Your task to perform on an android device: Open calendar and show me the third week of next month Image 0: 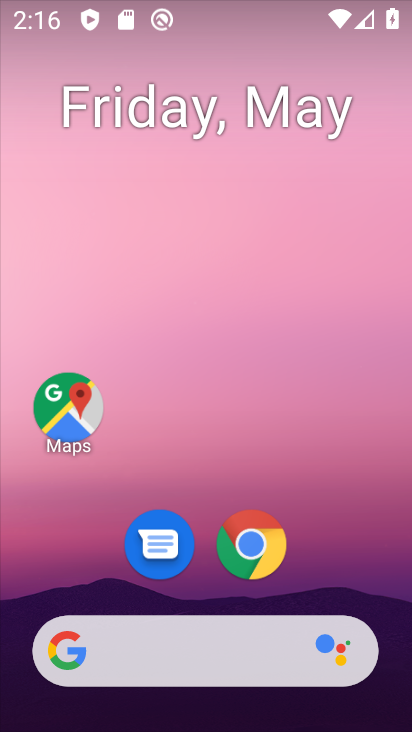
Step 0: drag from (184, 563) to (280, 0)
Your task to perform on an android device: Open calendar and show me the third week of next month Image 1: 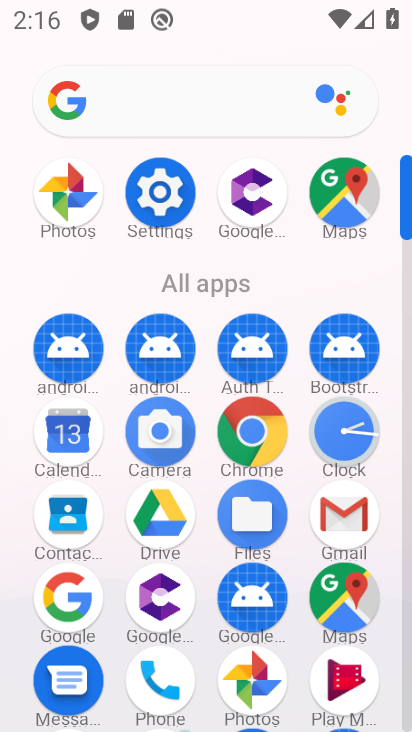
Step 1: click (75, 454)
Your task to perform on an android device: Open calendar and show me the third week of next month Image 2: 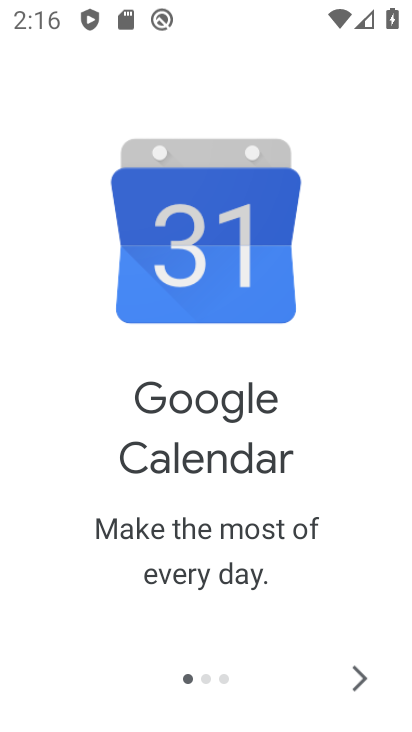
Step 2: click (377, 660)
Your task to perform on an android device: Open calendar and show me the third week of next month Image 3: 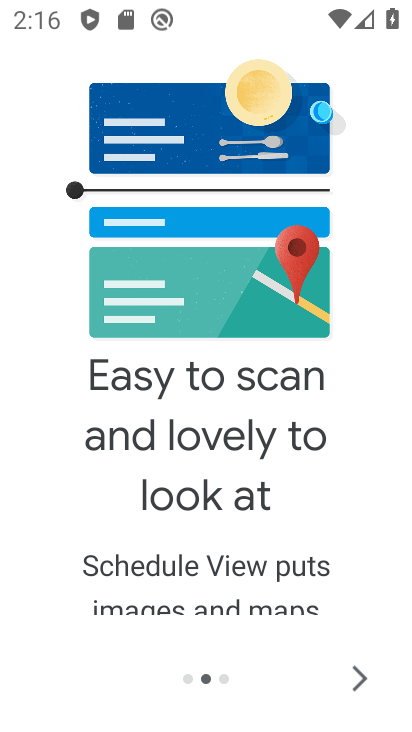
Step 3: click (365, 665)
Your task to perform on an android device: Open calendar and show me the third week of next month Image 4: 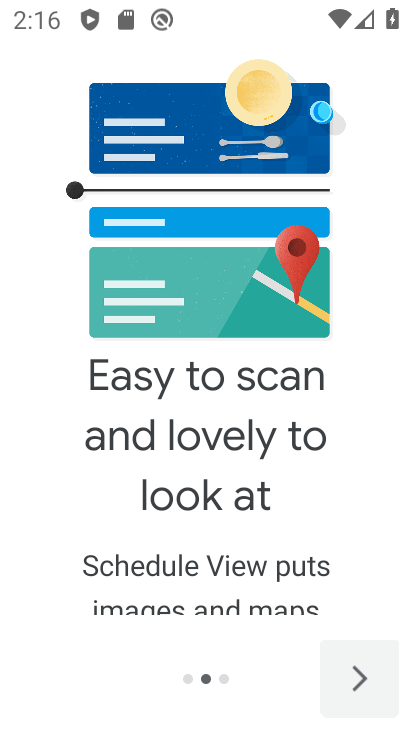
Step 4: click (365, 665)
Your task to perform on an android device: Open calendar and show me the third week of next month Image 5: 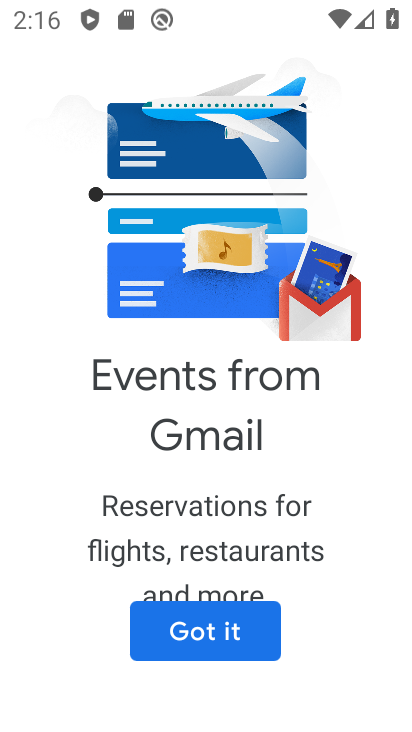
Step 5: click (211, 636)
Your task to perform on an android device: Open calendar and show me the third week of next month Image 6: 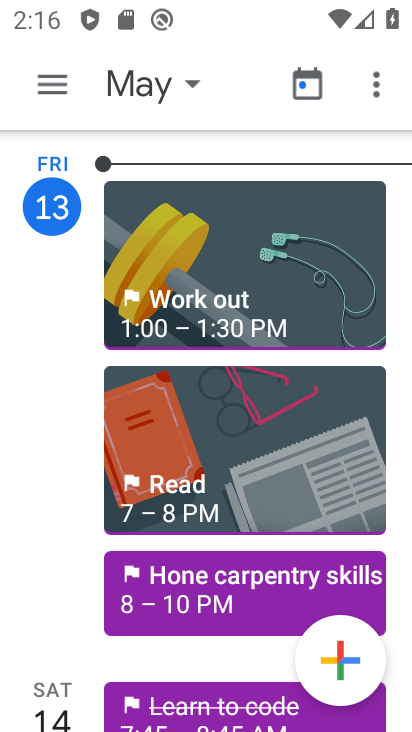
Step 6: click (165, 80)
Your task to perform on an android device: Open calendar and show me the third week of next month Image 7: 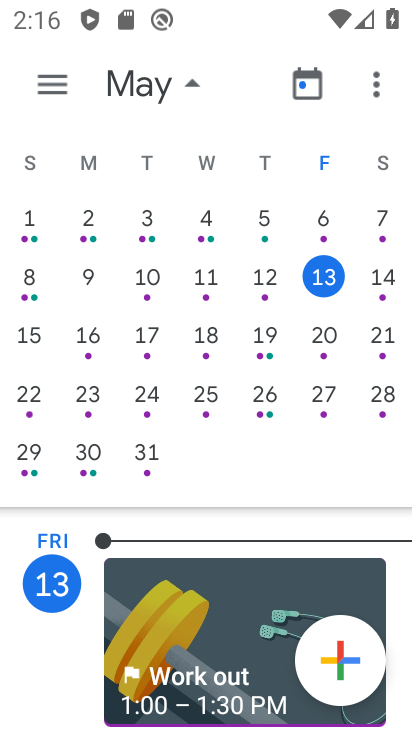
Step 7: drag from (361, 338) to (3, 289)
Your task to perform on an android device: Open calendar and show me the third week of next month Image 8: 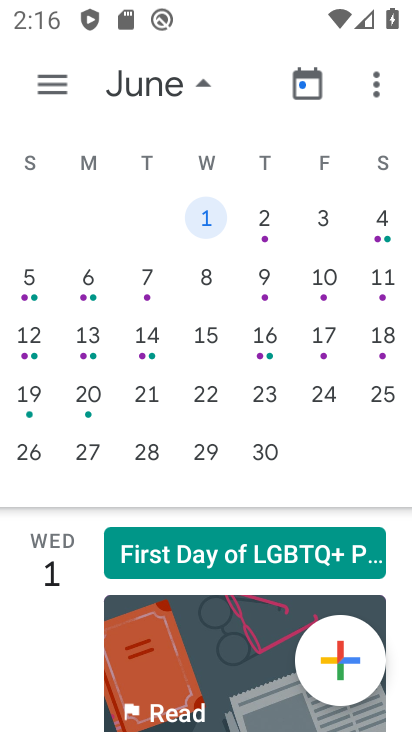
Step 8: click (92, 341)
Your task to perform on an android device: Open calendar and show me the third week of next month Image 9: 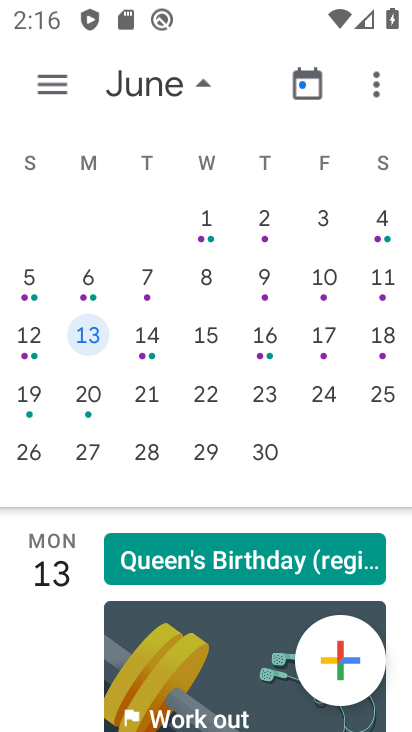
Step 9: task complete